Your task to perform on an android device: toggle pop-ups in chrome Image 0: 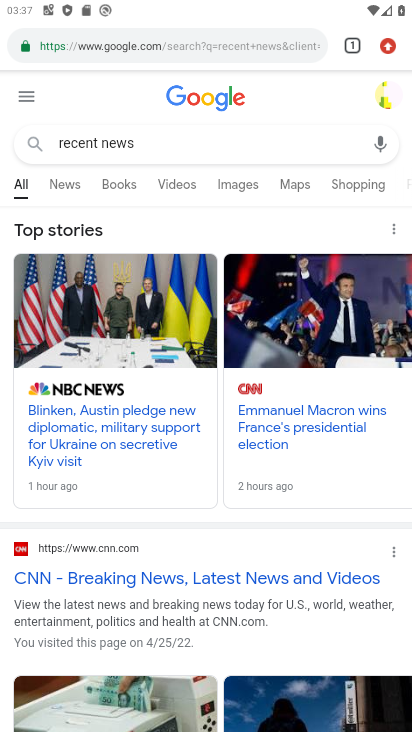
Step 0: press home button
Your task to perform on an android device: toggle pop-ups in chrome Image 1: 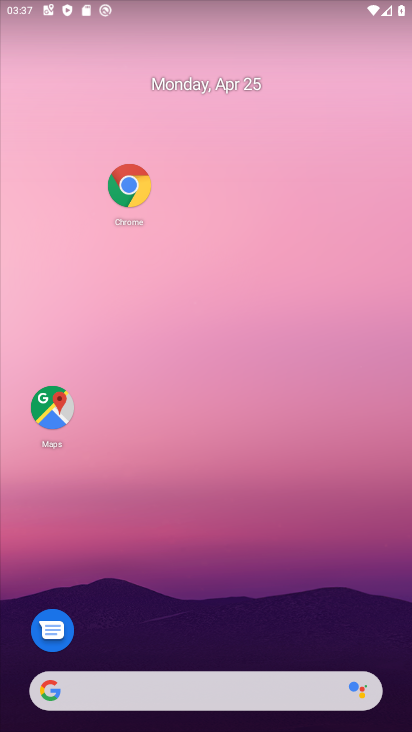
Step 1: drag from (115, 416) to (135, 120)
Your task to perform on an android device: toggle pop-ups in chrome Image 2: 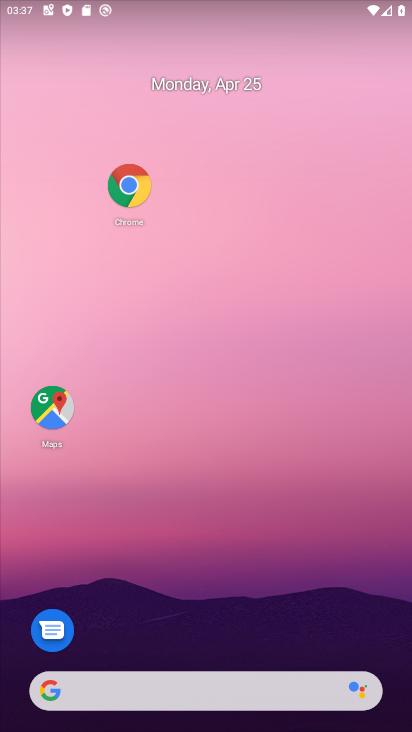
Step 2: click (133, 180)
Your task to perform on an android device: toggle pop-ups in chrome Image 3: 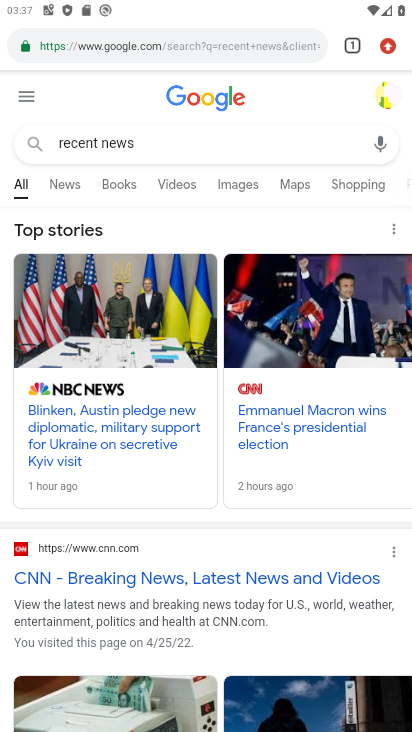
Step 3: click (385, 48)
Your task to perform on an android device: toggle pop-ups in chrome Image 4: 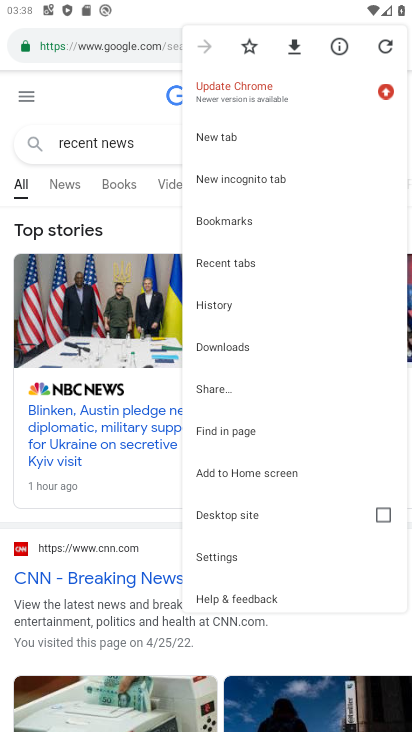
Step 4: click (228, 555)
Your task to perform on an android device: toggle pop-ups in chrome Image 5: 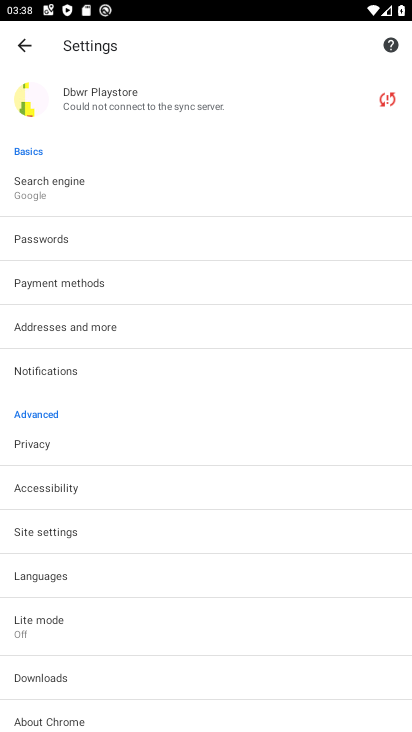
Step 5: click (27, 534)
Your task to perform on an android device: toggle pop-ups in chrome Image 6: 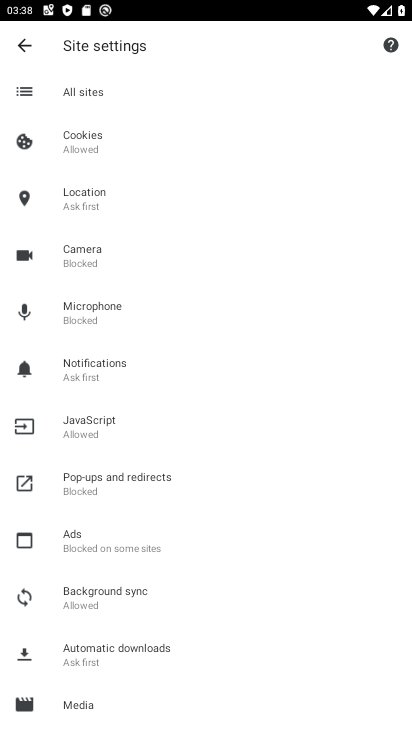
Step 6: click (118, 490)
Your task to perform on an android device: toggle pop-ups in chrome Image 7: 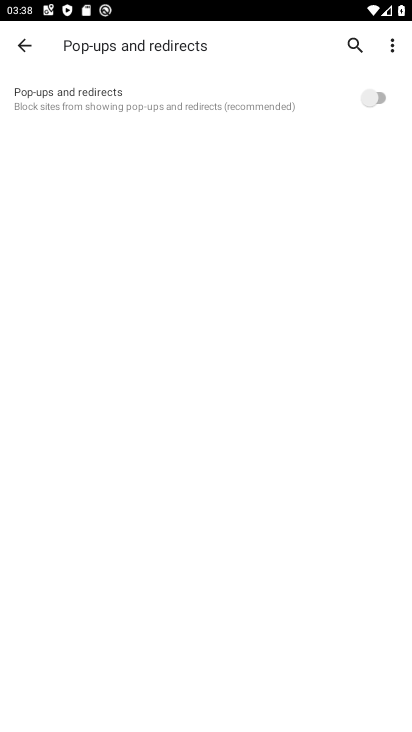
Step 7: click (378, 93)
Your task to perform on an android device: toggle pop-ups in chrome Image 8: 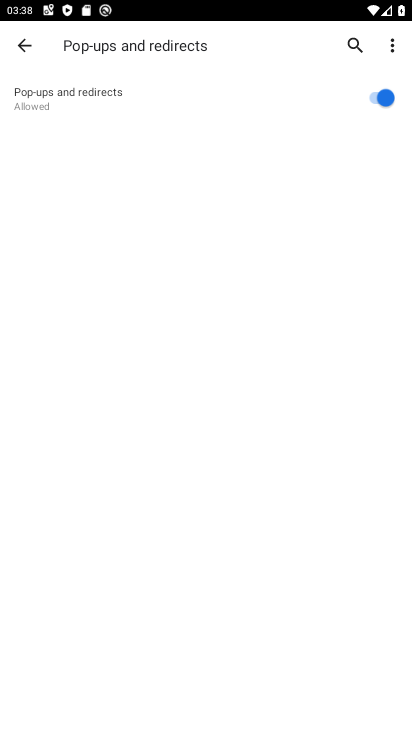
Step 8: task complete